Your task to perform on an android device: open device folders in google photos Image 0: 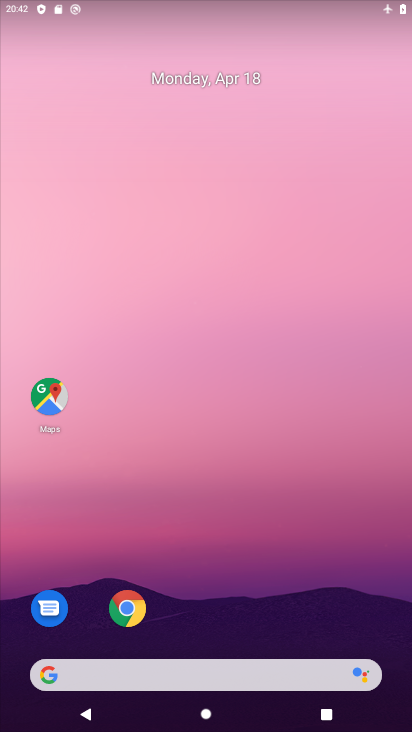
Step 0: drag from (210, 583) to (204, 167)
Your task to perform on an android device: open device folders in google photos Image 1: 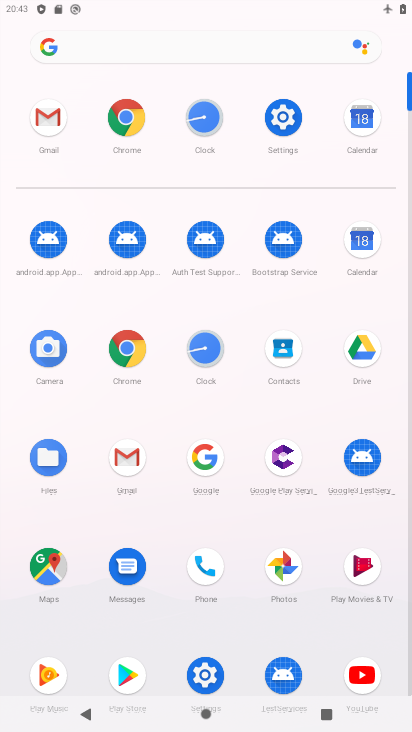
Step 1: click (283, 566)
Your task to perform on an android device: open device folders in google photos Image 2: 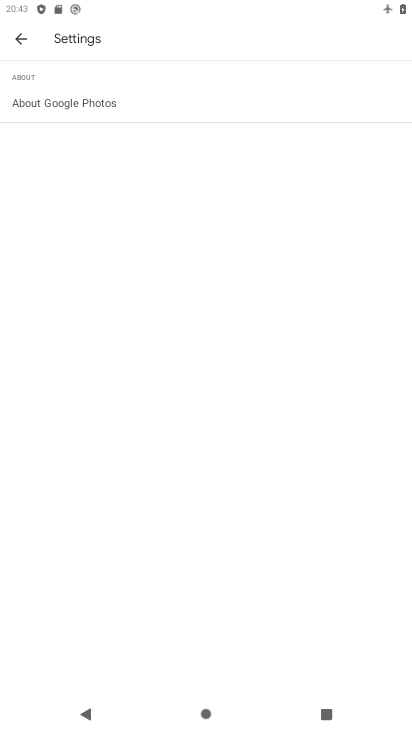
Step 2: press back button
Your task to perform on an android device: open device folders in google photos Image 3: 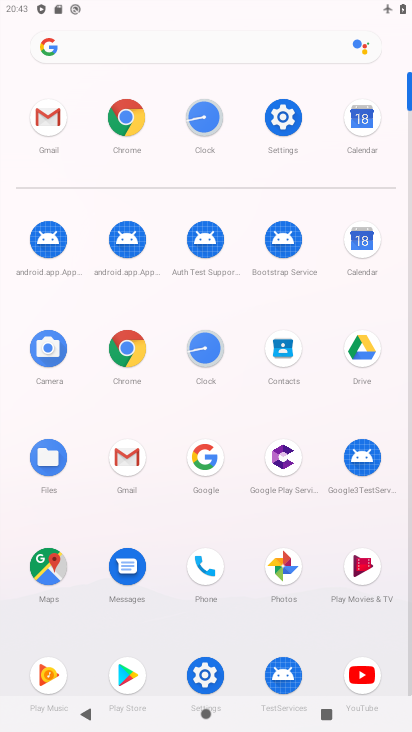
Step 3: click (277, 571)
Your task to perform on an android device: open device folders in google photos Image 4: 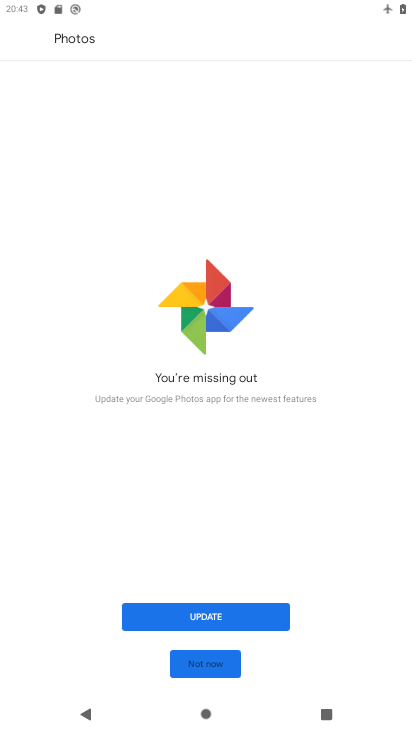
Step 4: click (202, 664)
Your task to perform on an android device: open device folders in google photos Image 5: 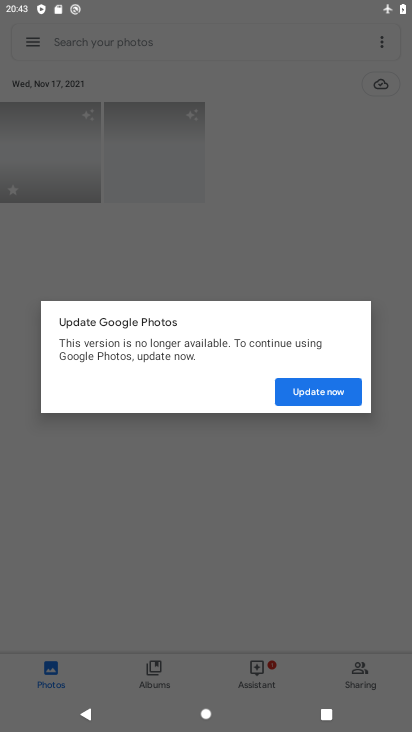
Step 5: click (310, 391)
Your task to perform on an android device: open device folders in google photos Image 6: 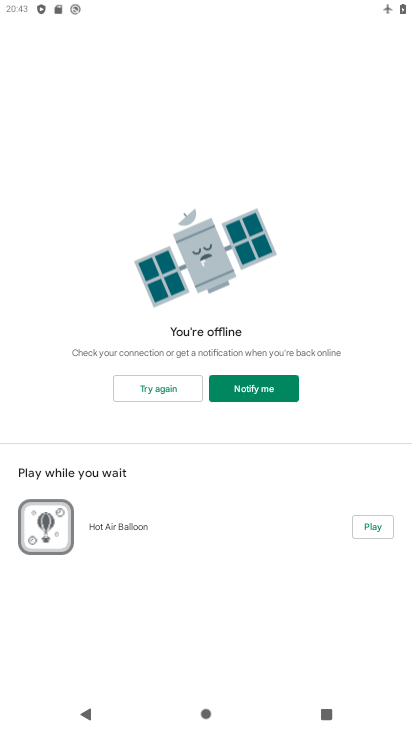
Step 6: task complete